Your task to perform on an android device: toggle wifi Image 0: 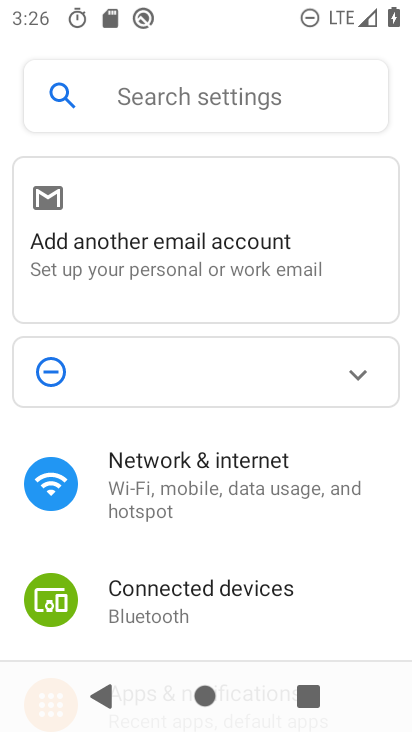
Step 0: drag from (275, 8) to (249, 546)
Your task to perform on an android device: toggle wifi Image 1: 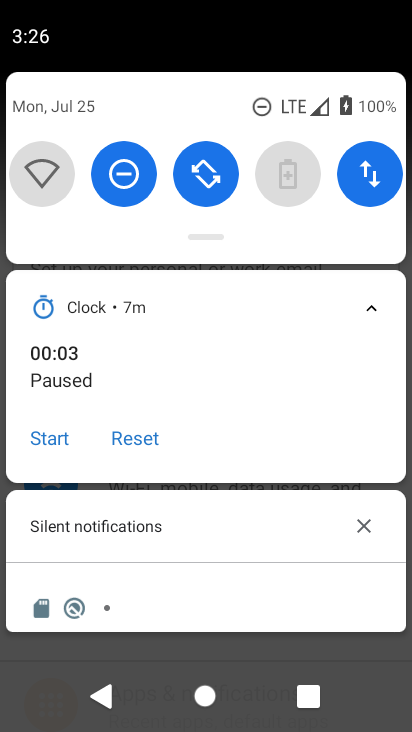
Step 1: click (40, 172)
Your task to perform on an android device: toggle wifi Image 2: 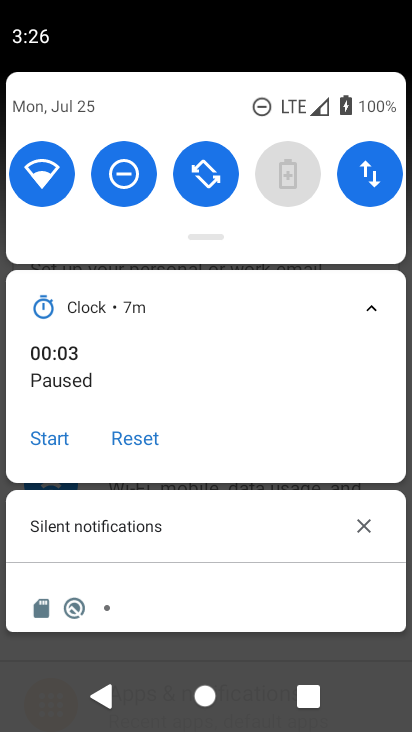
Step 2: task complete